Your task to perform on an android device: Go to Wikipedia Image 0: 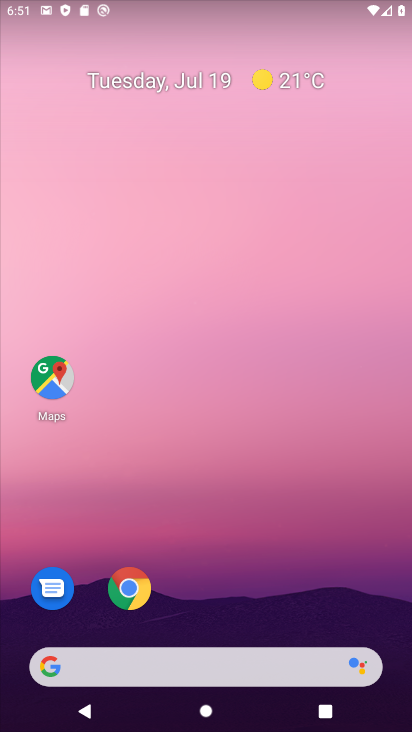
Step 0: drag from (214, 604) to (201, 109)
Your task to perform on an android device: Go to Wikipedia Image 1: 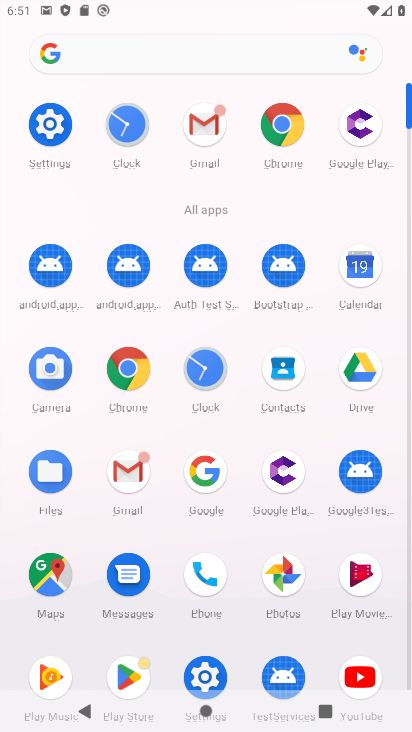
Step 1: click (128, 388)
Your task to perform on an android device: Go to Wikipedia Image 2: 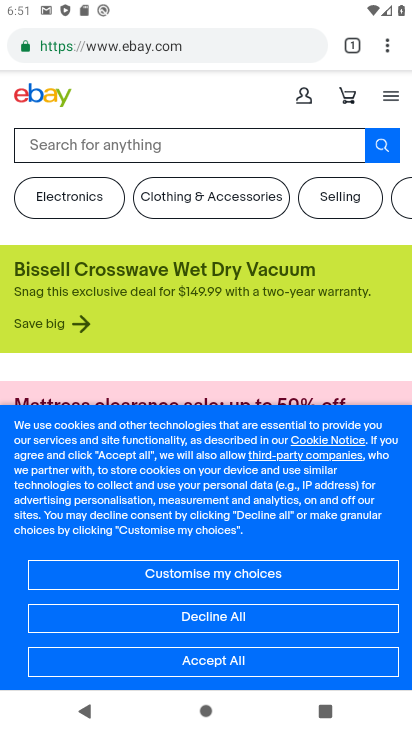
Step 2: click (363, 44)
Your task to perform on an android device: Go to Wikipedia Image 3: 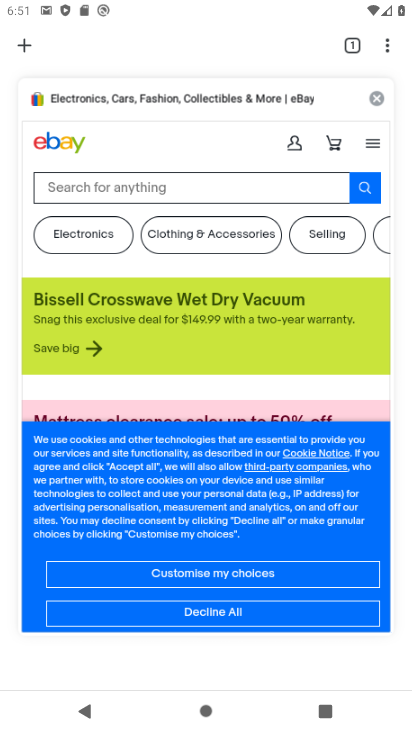
Step 3: click (21, 51)
Your task to perform on an android device: Go to Wikipedia Image 4: 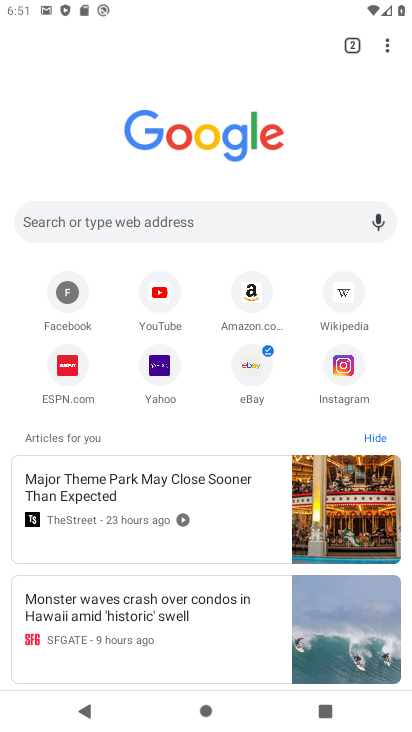
Step 4: click (347, 297)
Your task to perform on an android device: Go to Wikipedia Image 5: 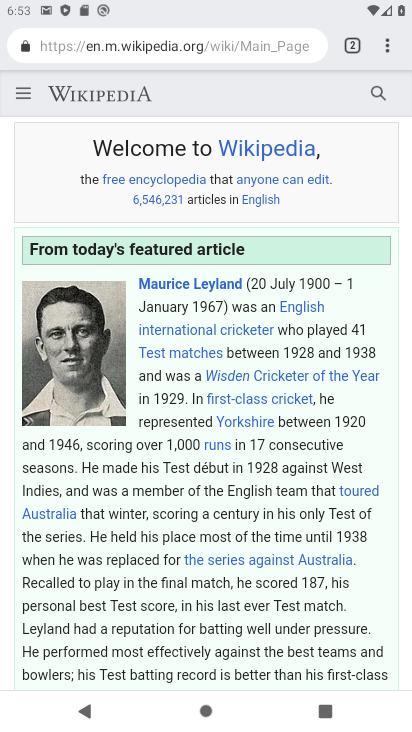
Step 5: task complete